Your task to perform on an android device: Open Maps and search for coffee Image 0: 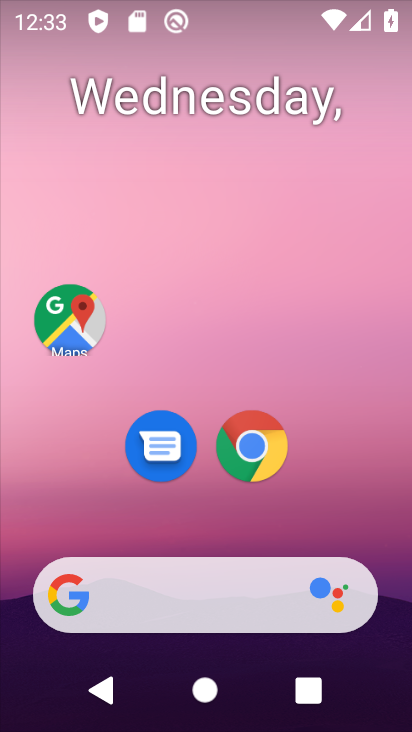
Step 0: drag from (340, 609) to (176, 135)
Your task to perform on an android device: Open Maps and search for coffee Image 1: 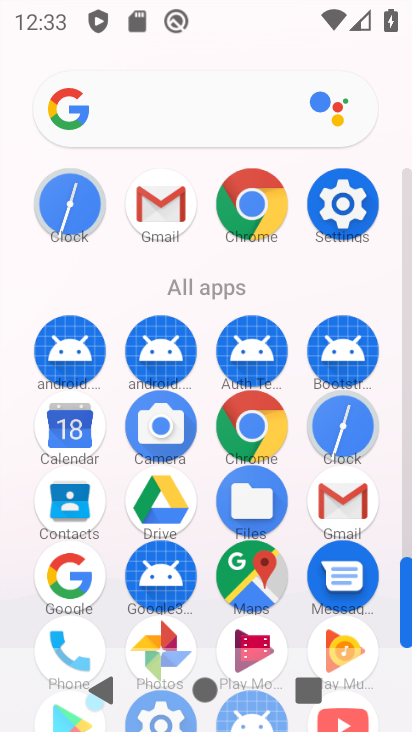
Step 1: click (256, 578)
Your task to perform on an android device: Open Maps and search for coffee Image 2: 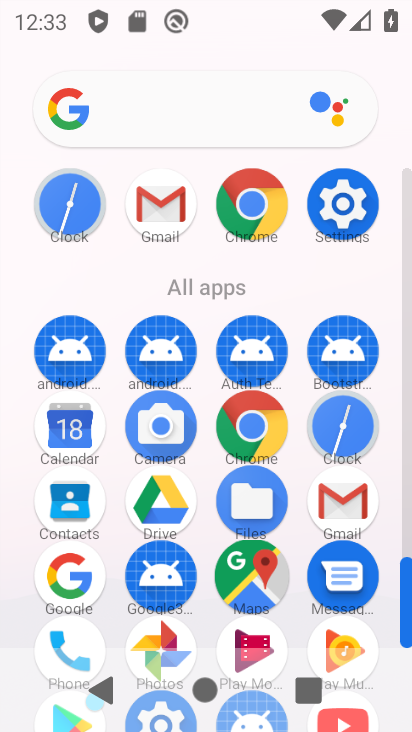
Step 2: click (263, 600)
Your task to perform on an android device: Open Maps and search for coffee Image 3: 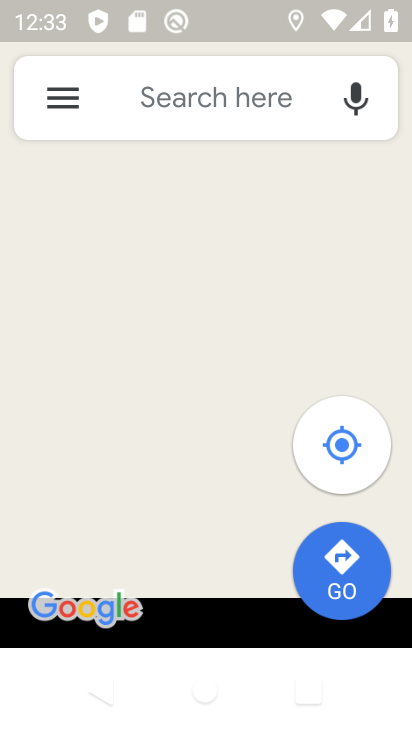
Step 3: click (120, 92)
Your task to perform on an android device: Open Maps and search for coffee Image 4: 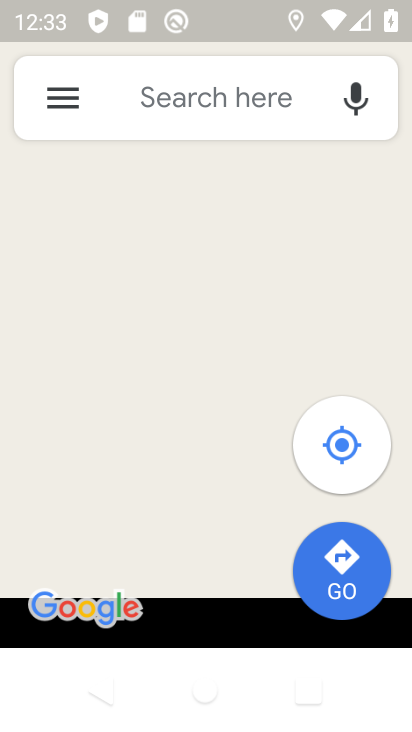
Step 4: click (120, 92)
Your task to perform on an android device: Open Maps and search for coffee Image 5: 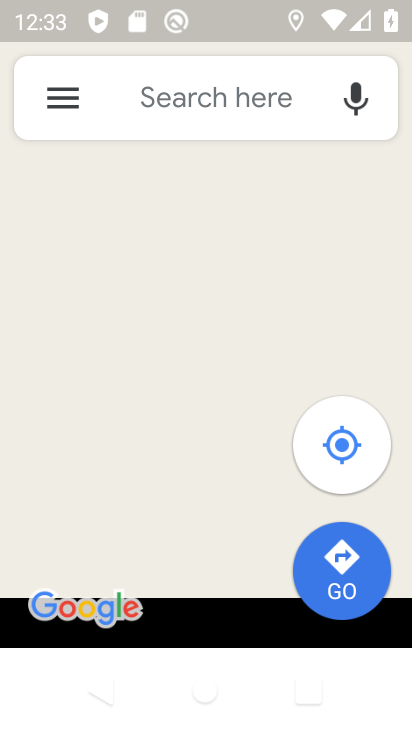
Step 5: click (120, 92)
Your task to perform on an android device: Open Maps and search for coffee Image 6: 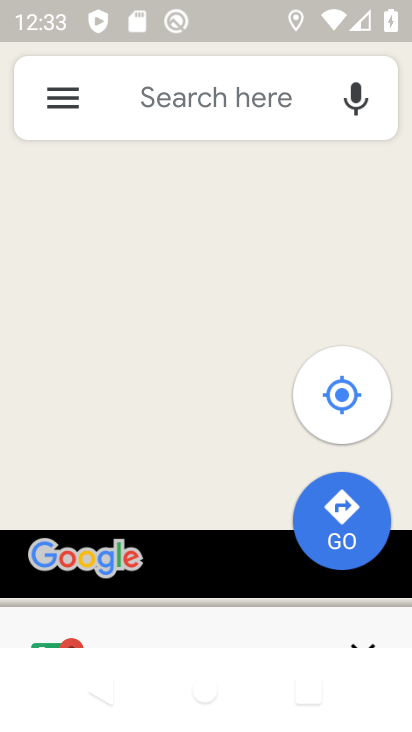
Step 6: click (120, 92)
Your task to perform on an android device: Open Maps and search for coffee Image 7: 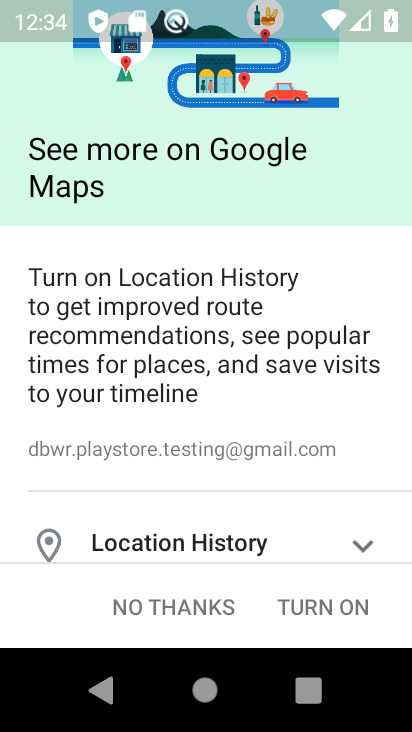
Step 7: click (326, 597)
Your task to perform on an android device: Open Maps and search for coffee Image 8: 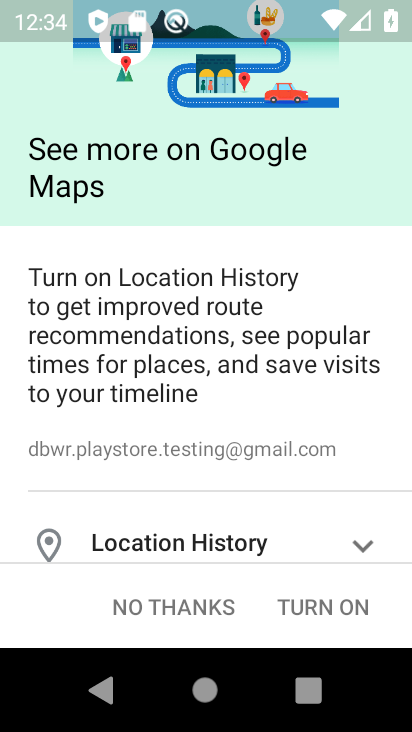
Step 8: click (326, 597)
Your task to perform on an android device: Open Maps and search for coffee Image 9: 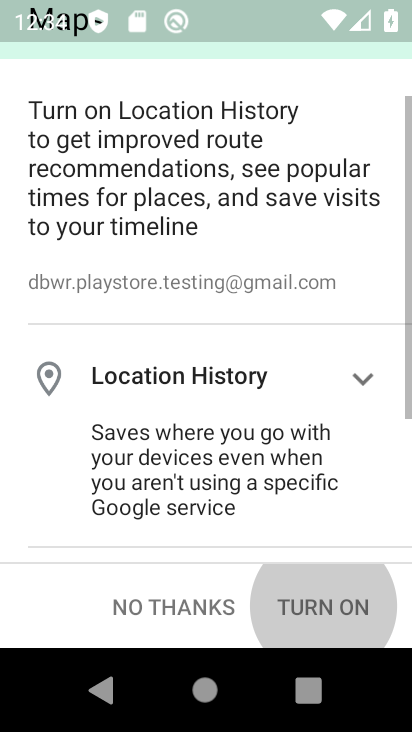
Step 9: click (326, 597)
Your task to perform on an android device: Open Maps and search for coffee Image 10: 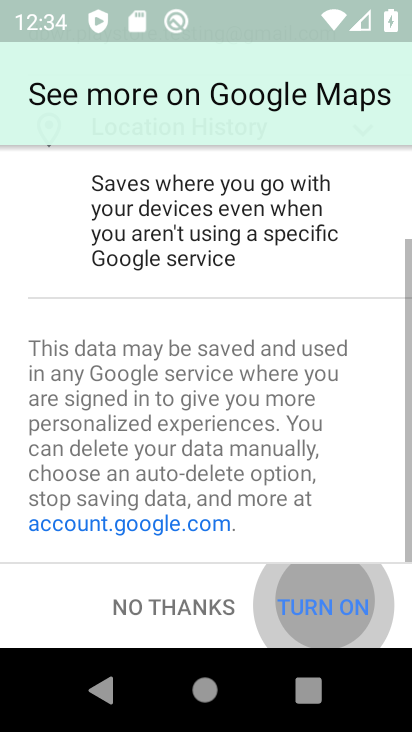
Step 10: click (326, 596)
Your task to perform on an android device: Open Maps and search for coffee Image 11: 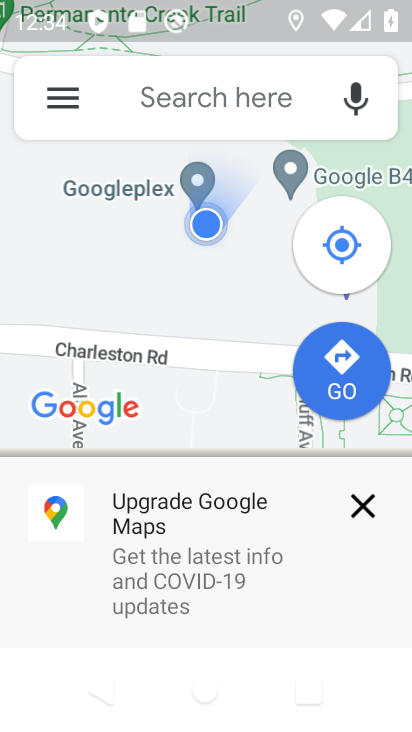
Step 11: click (146, 96)
Your task to perform on an android device: Open Maps and search for coffee Image 12: 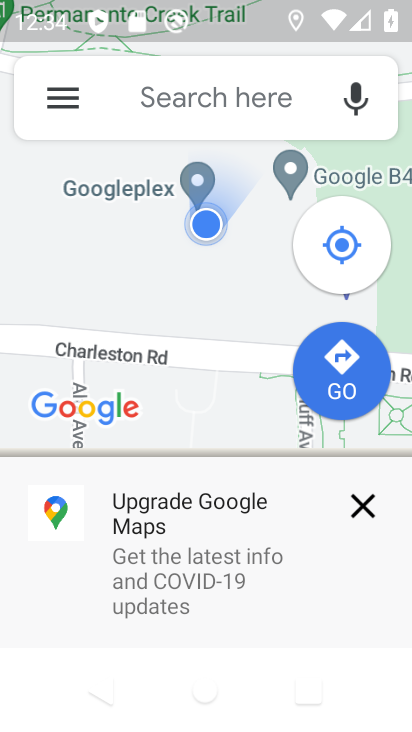
Step 12: click (144, 94)
Your task to perform on an android device: Open Maps and search for coffee Image 13: 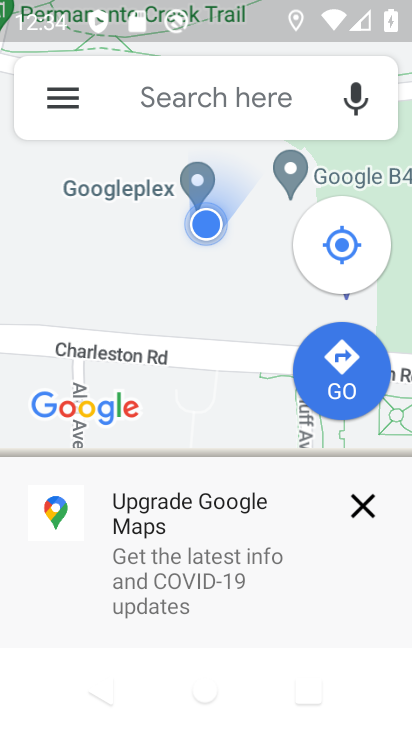
Step 13: click (144, 94)
Your task to perform on an android device: Open Maps and search for coffee Image 14: 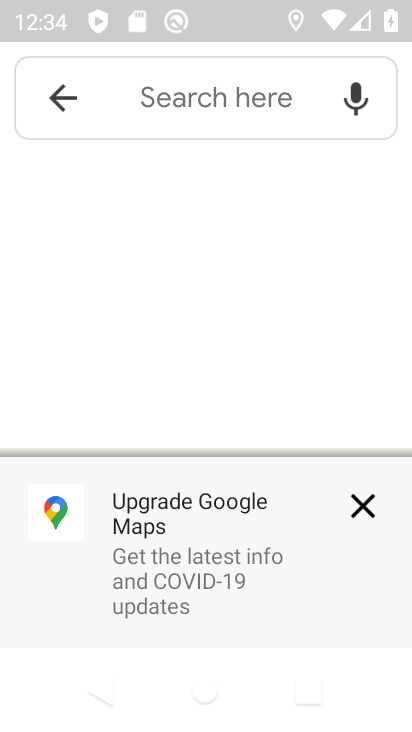
Step 14: click (145, 85)
Your task to perform on an android device: Open Maps and search for coffee Image 15: 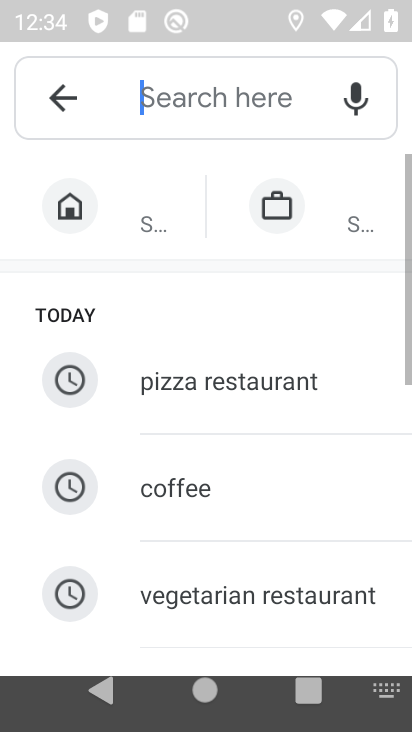
Step 15: click (149, 89)
Your task to perform on an android device: Open Maps and search for coffee Image 16: 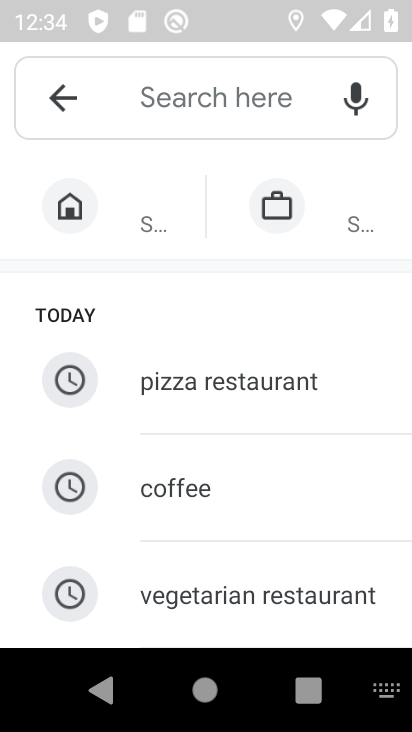
Step 16: click (180, 475)
Your task to perform on an android device: Open Maps and search for coffee Image 17: 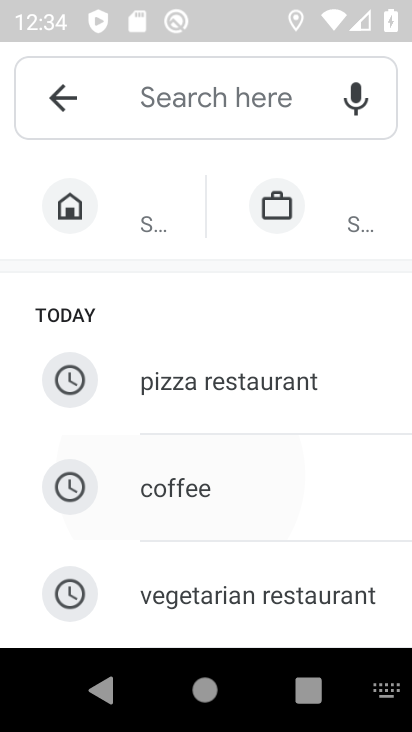
Step 17: click (188, 478)
Your task to perform on an android device: Open Maps and search for coffee Image 18: 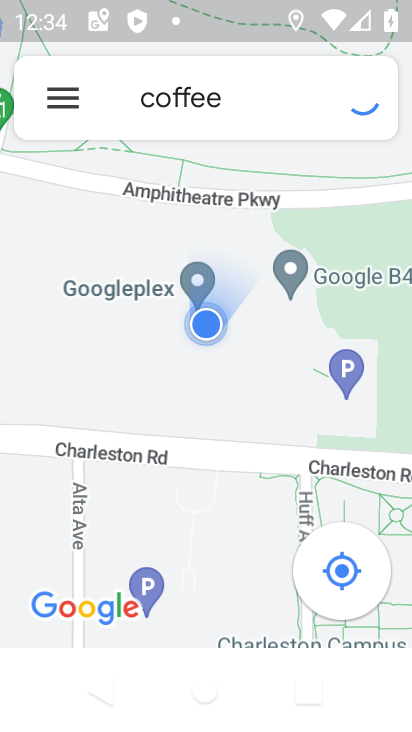
Step 18: task complete